Your task to perform on an android device: Search for hotels in Mexico city Image 0: 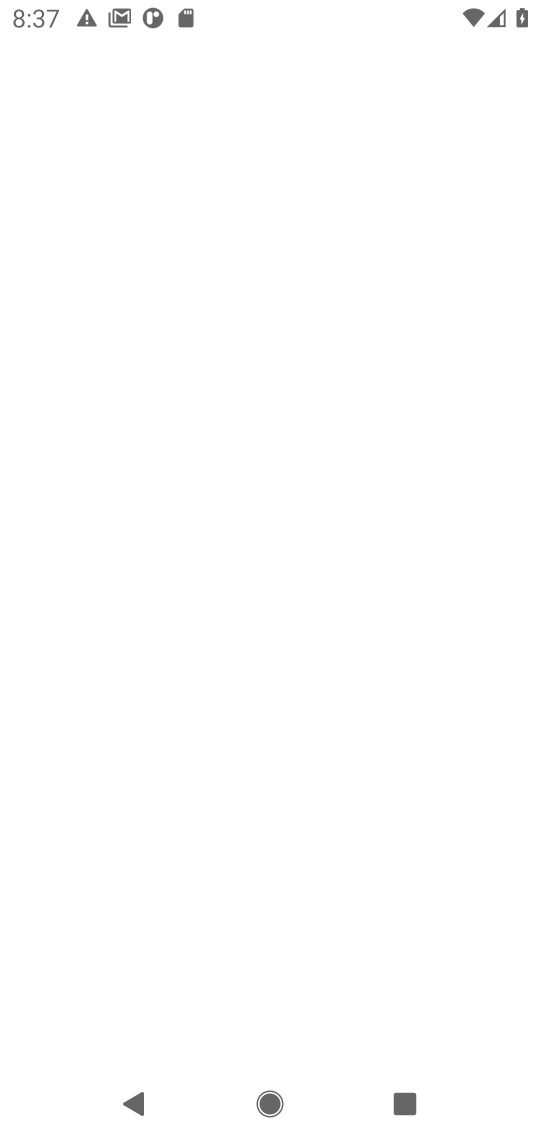
Step 0: press home button
Your task to perform on an android device: Search for hotels in Mexico city Image 1: 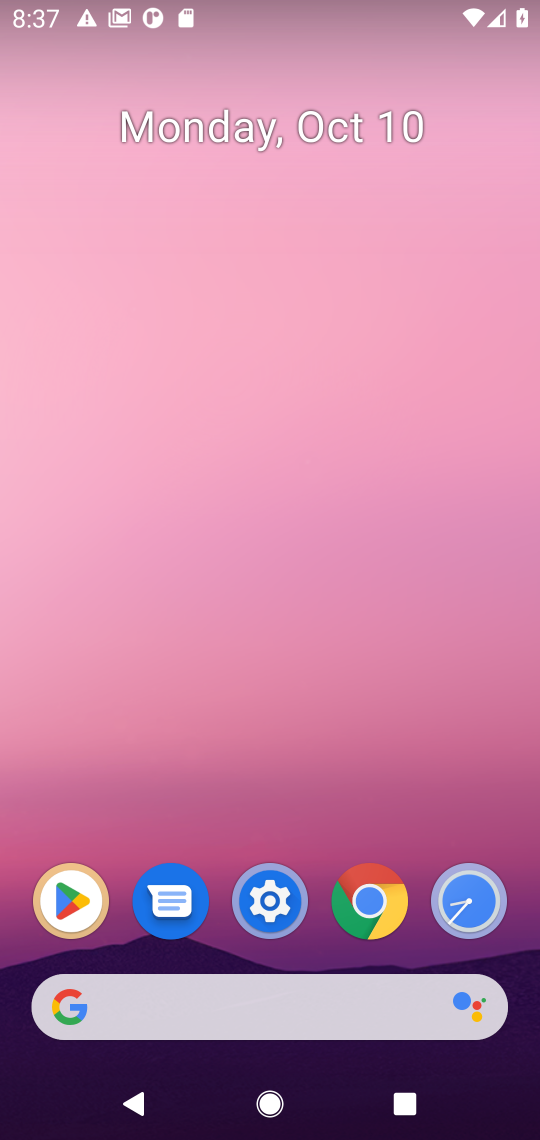
Step 1: click (286, 1015)
Your task to perform on an android device: Search for hotels in Mexico city Image 2: 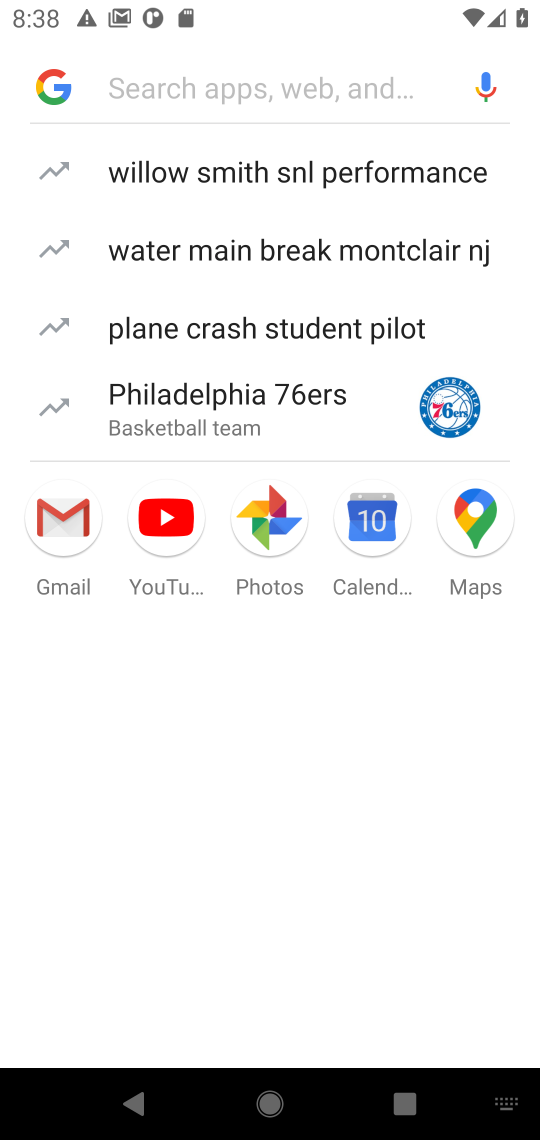
Step 2: type " hotels in Mexico city"
Your task to perform on an android device: Search for hotels in Mexico city Image 3: 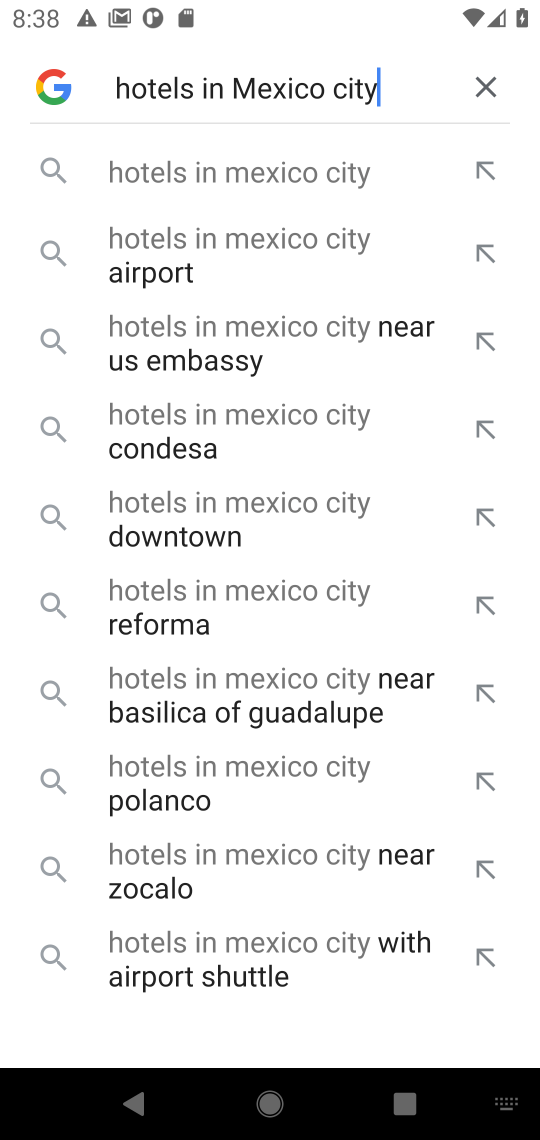
Step 3: press enter
Your task to perform on an android device: Search for hotels in Mexico city Image 4: 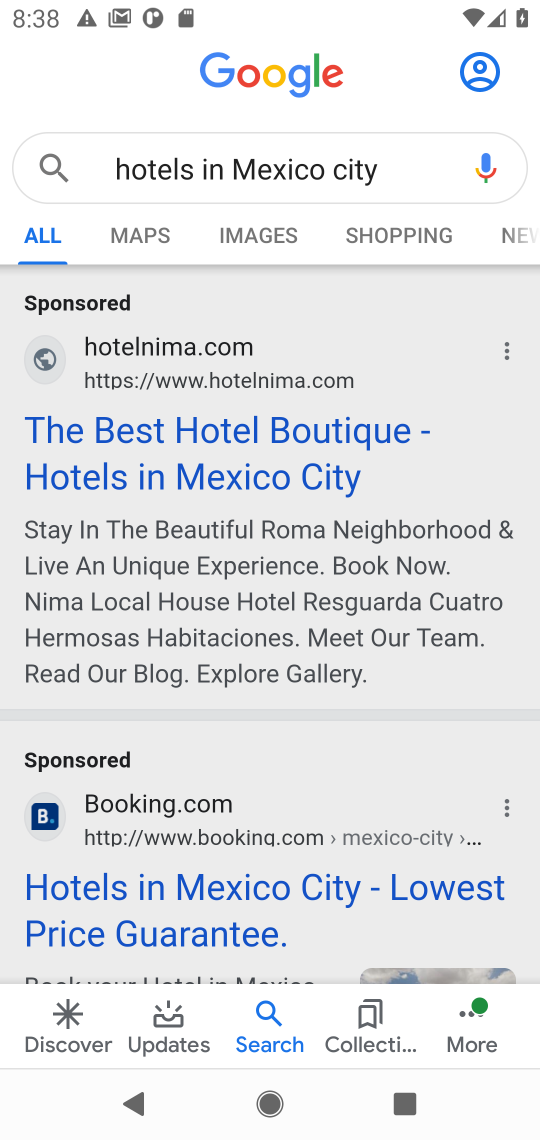
Step 4: click (193, 917)
Your task to perform on an android device: Search for hotels in Mexico city Image 5: 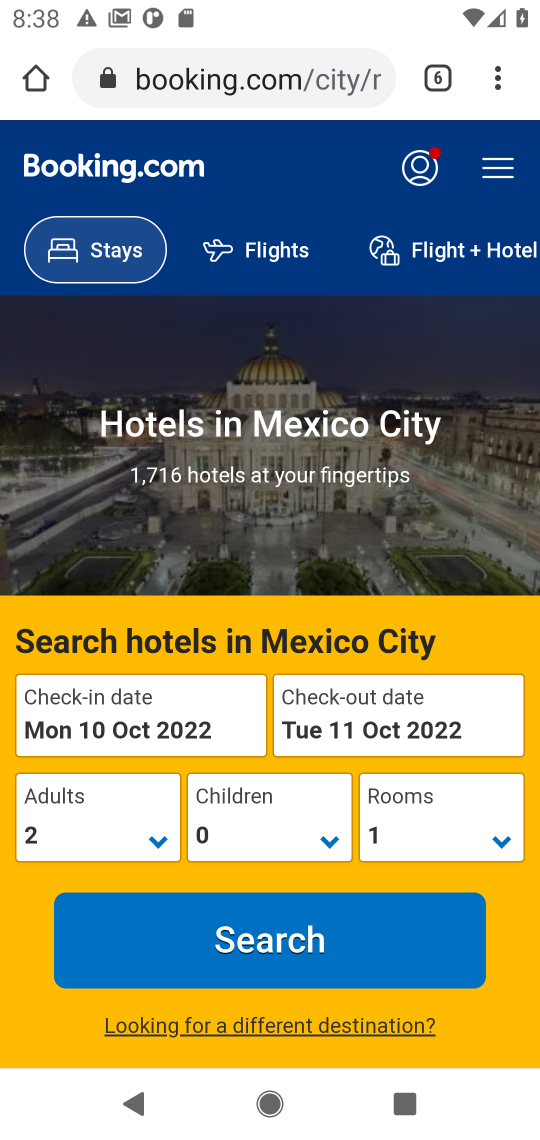
Step 5: click (291, 952)
Your task to perform on an android device: Search for hotels in Mexico city Image 6: 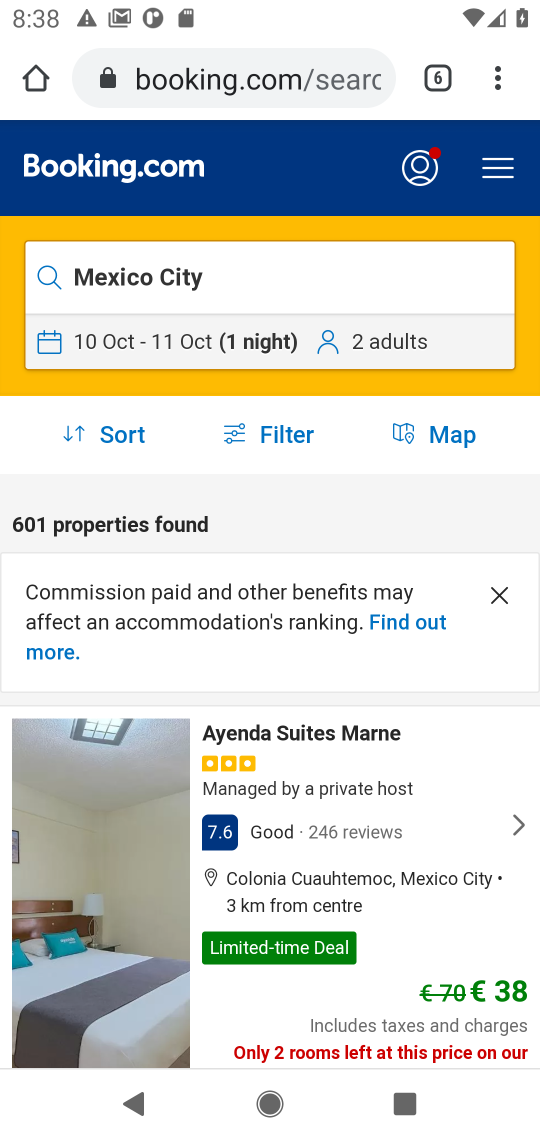
Step 6: task complete